Your task to perform on an android device: visit the assistant section in the google photos Image 0: 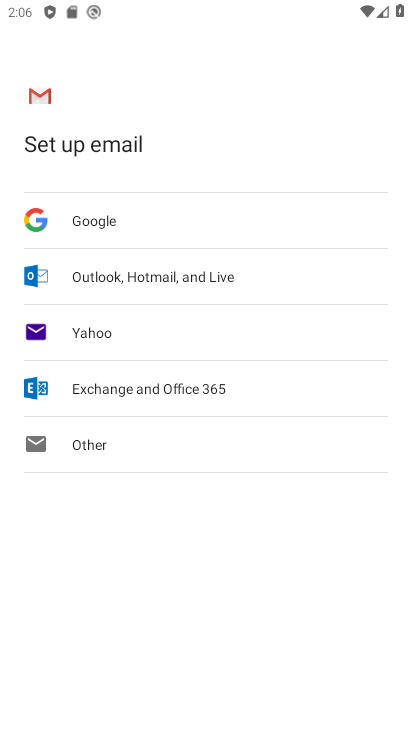
Step 0: press home button
Your task to perform on an android device: visit the assistant section in the google photos Image 1: 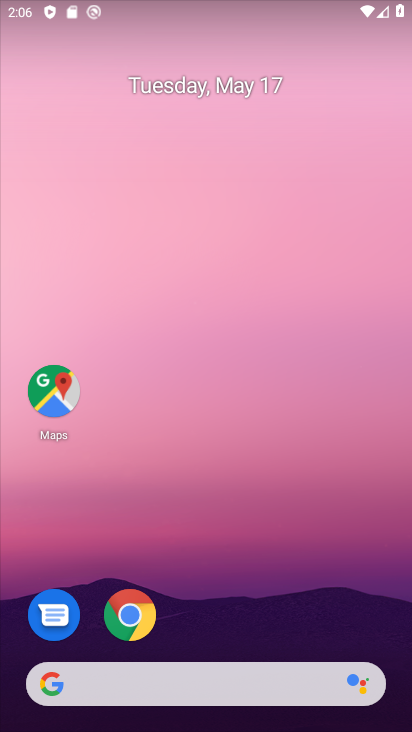
Step 1: drag from (212, 638) to (269, 155)
Your task to perform on an android device: visit the assistant section in the google photos Image 2: 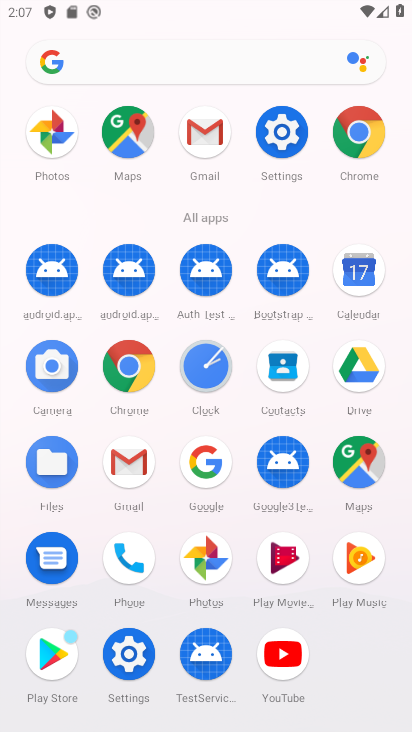
Step 2: click (206, 556)
Your task to perform on an android device: visit the assistant section in the google photos Image 3: 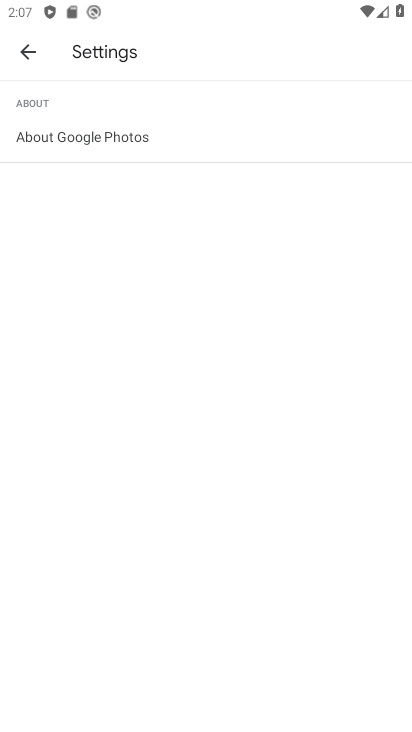
Step 3: click (33, 55)
Your task to perform on an android device: visit the assistant section in the google photos Image 4: 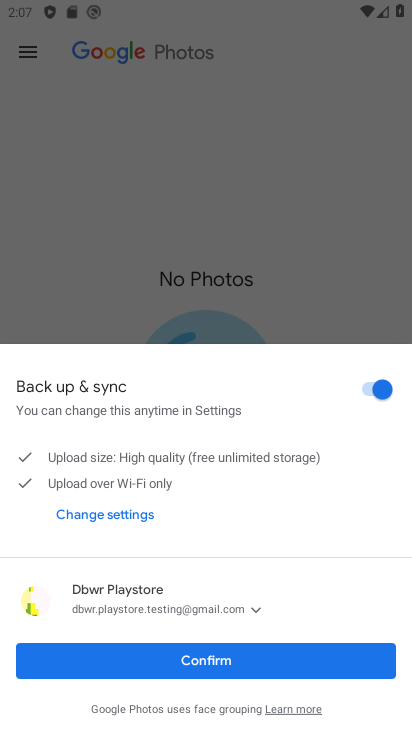
Step 4: click (220, 666)
Your task to perform on an android device: visit the assistant section in the google photos Image 5: 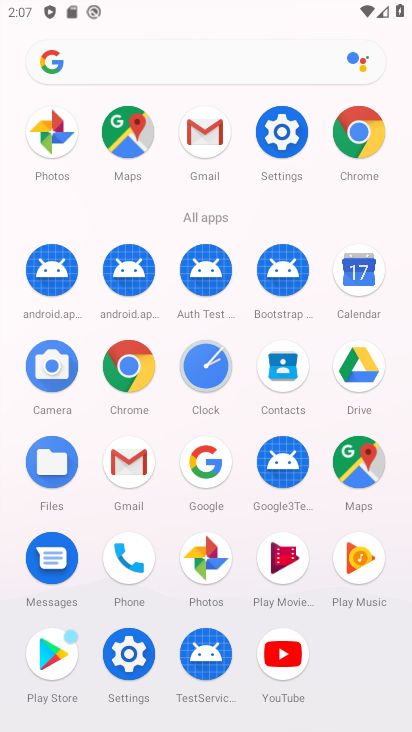
Step 5: click (204, 549)
Your task to perform on an android device: visit the assistant section in the google photos Image 6: 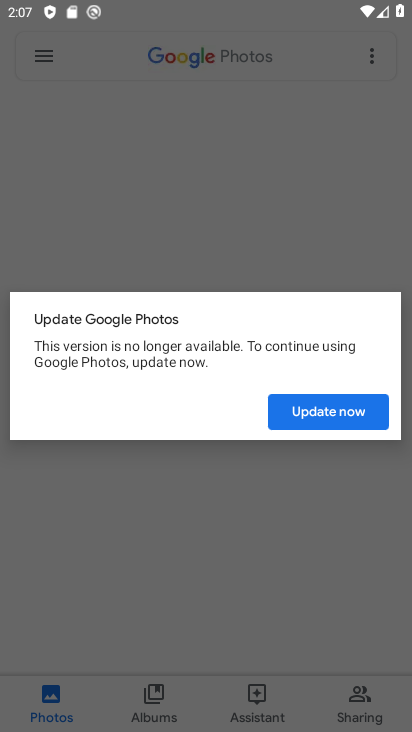
Step 6: click (254, 693)
Your task to perform on an android device: visit the assistant section in the google photos Image 7: 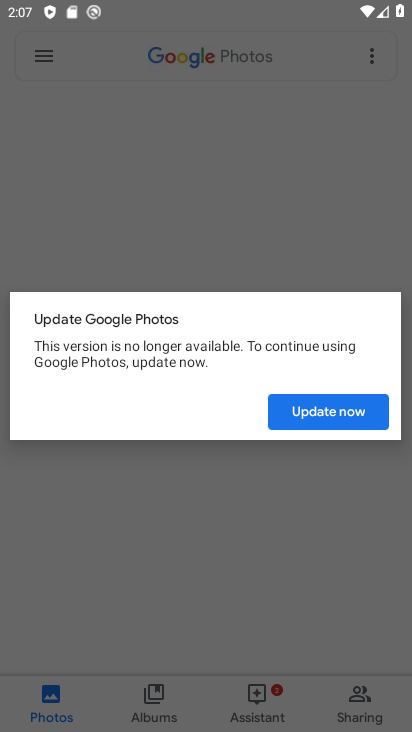
Step 7: click (253, 693)
Your task to perform on an android device: visit the assistant section in the google photos Image 8: 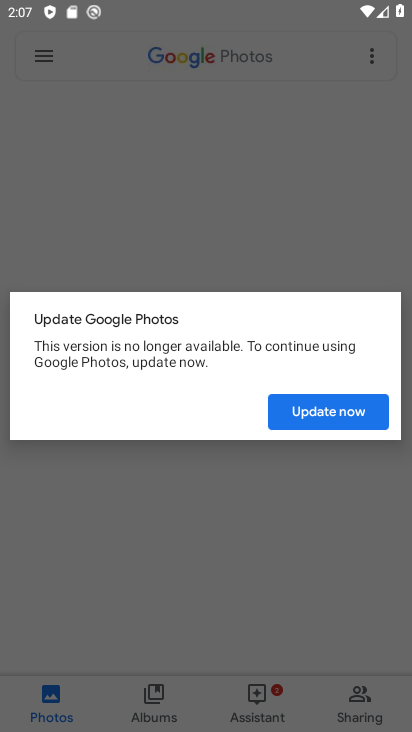
Step 8: click (326, 402)
Your task to perform on an android device: visit the assistant section in the google photos Image 9: 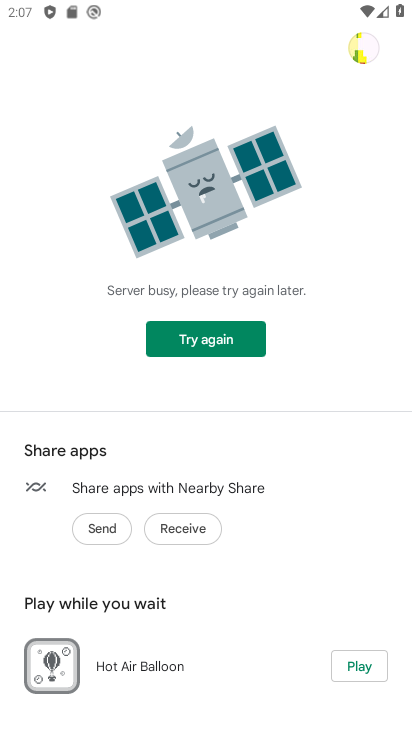
Step 9: task complete